Your task to perform on an android device: open the mobile data screen to see how much data has been used Image 0: 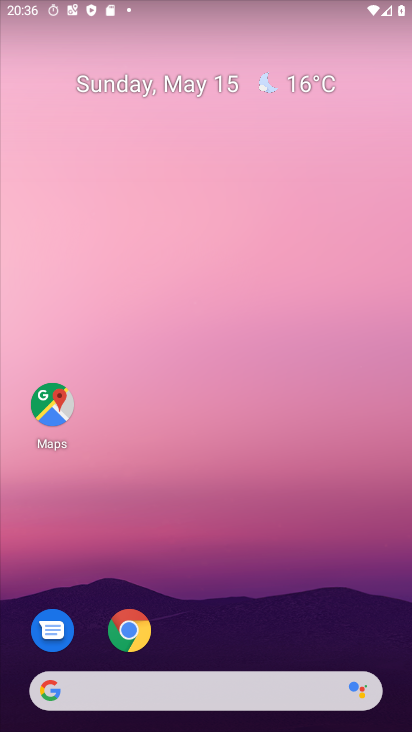
Step 0: drag from (250, 600) to (321, 59)
Your task to perform on an android device: open the mobile data screen to see how much data has been used Image 1: 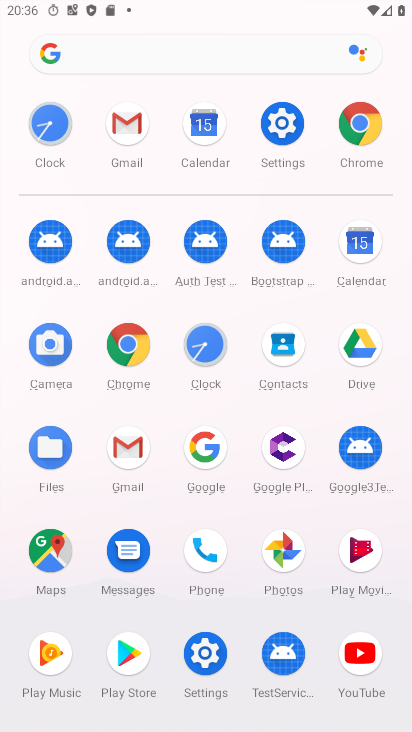
Step 1: click (280, 128)
Your task to perform on an android device: open the mobile data screen to see how much data has been used Image 2: 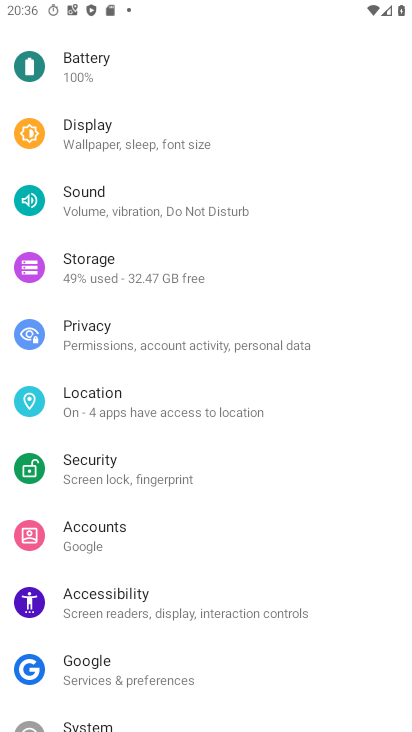
Step 2: drag from (213, 159) to (219, 437)
Your task to perform on an android device: open the mobile data screen to see how much data has been used Image 3: 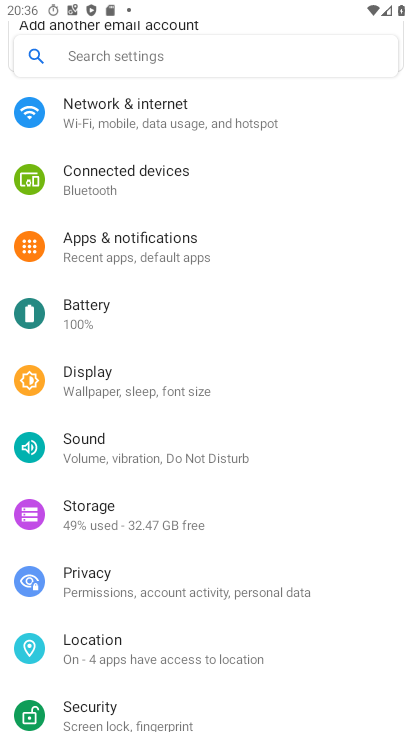
Step 3: drag from (211, 198) to (205, 480)
Your task to perform on an android device: open the mobile data screen to see how much data has been used Image 4: 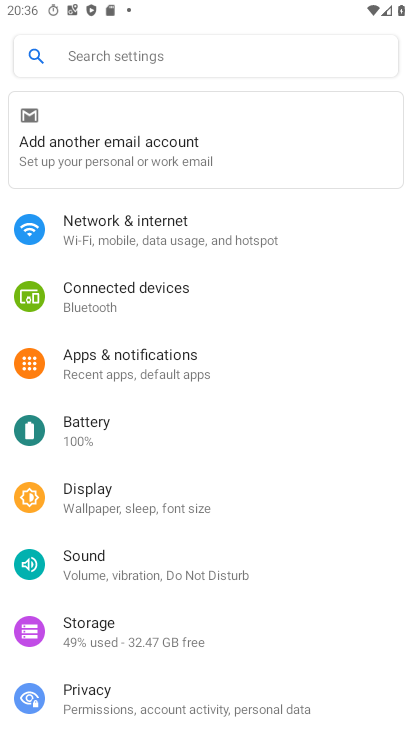
Step 4: click (179, 245)
Your task to perform on an android device: open the mobile data screen to see how much data has been used Image 5: 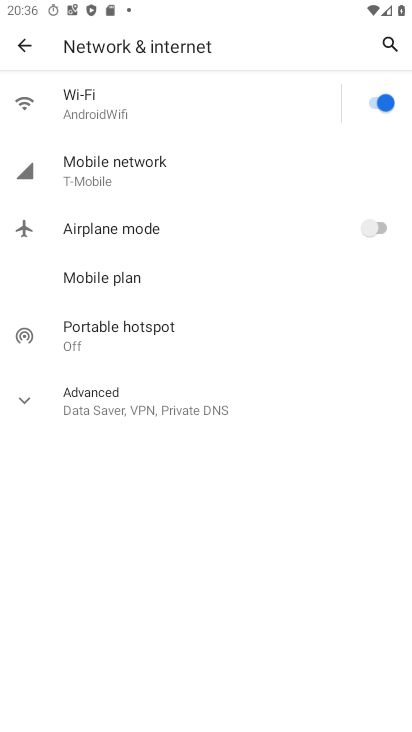
Step 5: click (134, 179)
Your task to perform on an android device: open the mobile data screen to see how much data has been used Image 6: 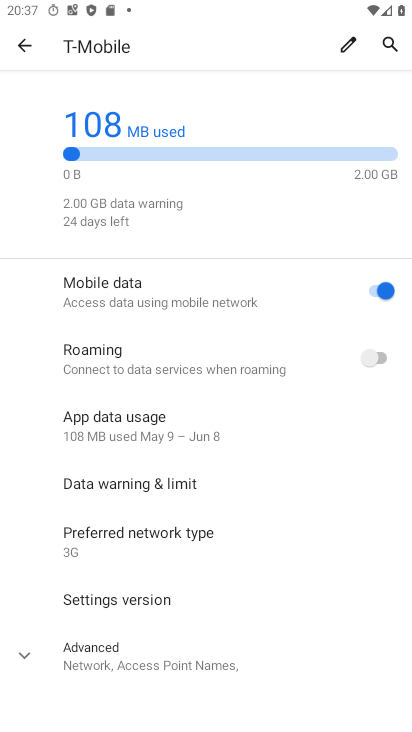
Step 6: task complete